Your task to perform on an android device: turn on airplane mode Image 0: 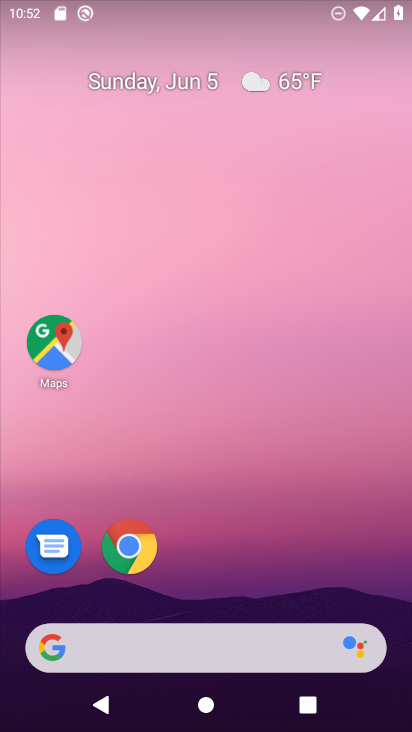
Step 0: drag from (178, 593) to (236, 127)
Your task to perform on an android device: turn on airplane mode Image 1: 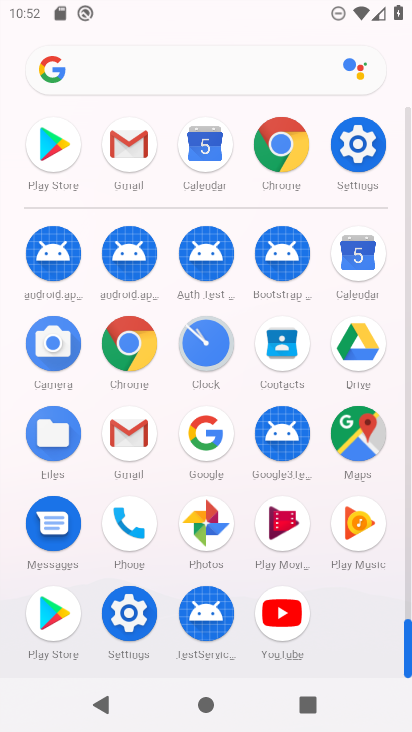
Step 1: click (359, 119)
Your task to perform on an android device: turn on airplane mode Image 2: 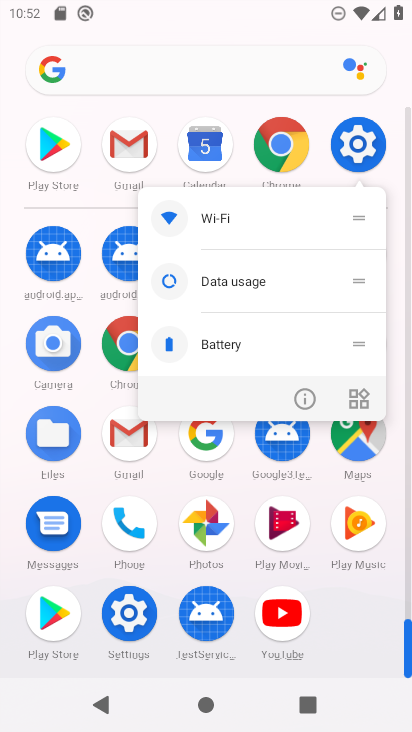
Step 2: click (313, 392)
Your task to perform on an android device: turn on airplane mode Image 3: 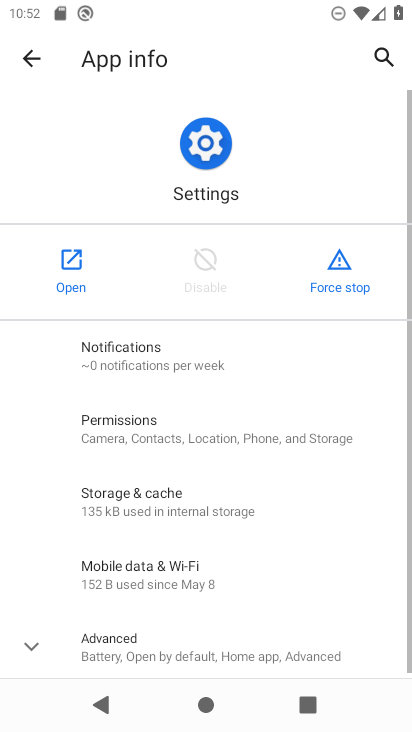
Step 3: click (69, 283)
Your task to perform on an android device: turn on airplane mode Image 4: 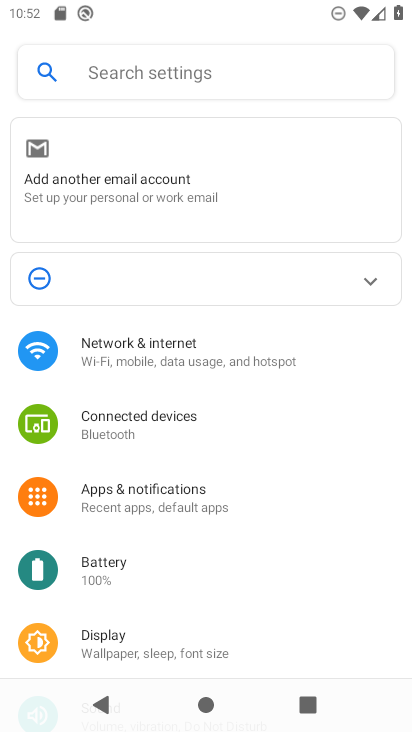
Step 4: drag from (216, 603) to (245, 365)
Your task to perform on an android device: turn on airplane mode Image 5: 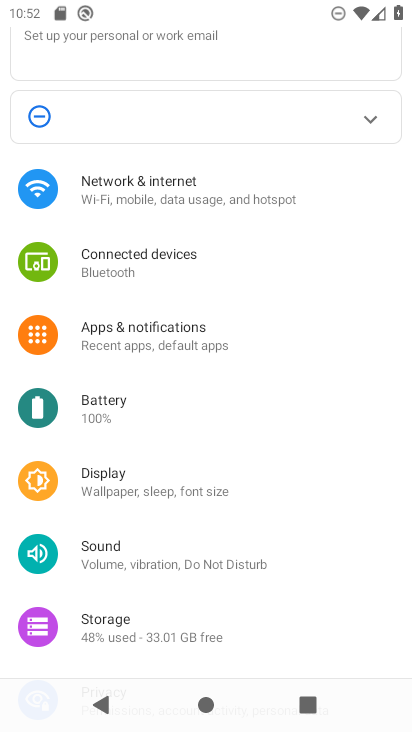
Step 5: click (219, 186)
Your task to perform on an android device: turn on airplane mode Image 6: 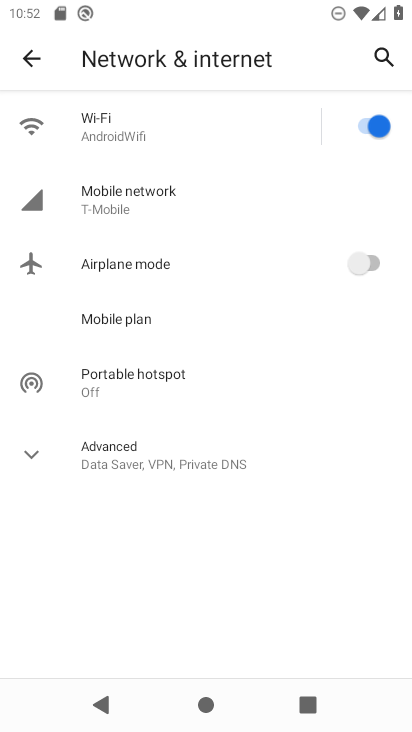
Step 6: click (154, 271)
Your task to perform on an android device: turn on airplane mode Image 7: 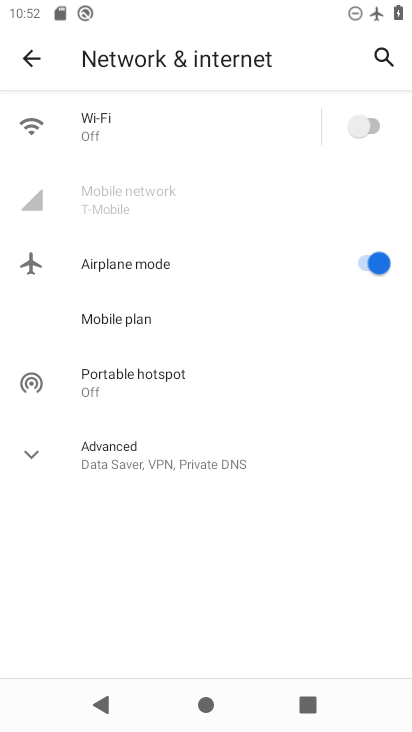
Step 7: task complete